Your task to perform on an android device: Clear the shopping cart on costco.com. Add razer kraken to the cart on costco.com Image 0: 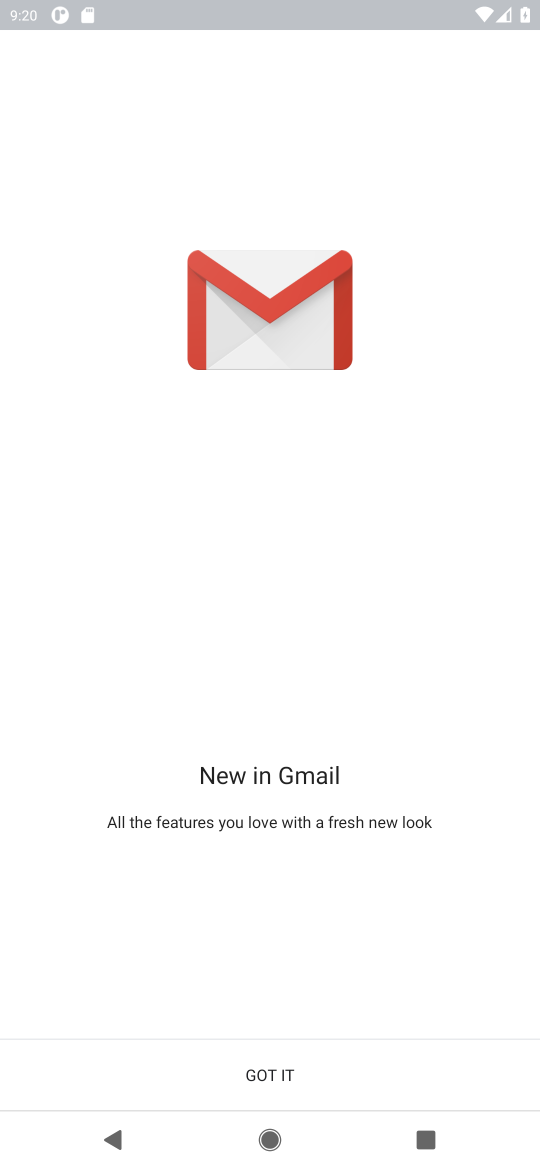
Step 0: press home button
Your task to perform on an android device: Clear the shopping cart on costco.com. Add razer kraken to the cart on costco.com Image 1: 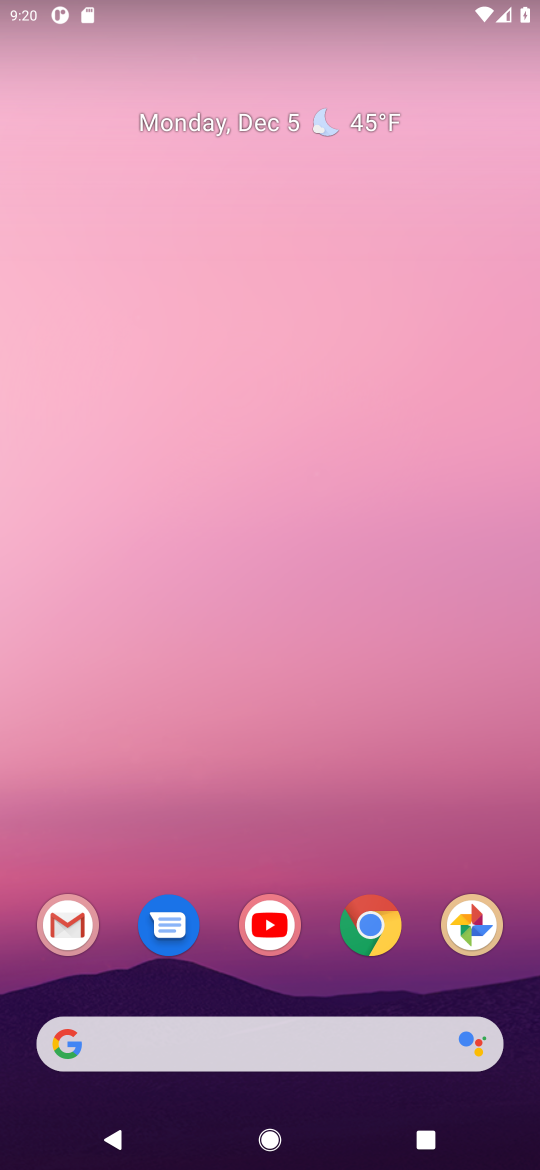
Step 1: click (371, 921)
Your task to perform on an android device: Clear the shopping cart on costco.com. Add razer kraken to the cart on costco.com Image 2: 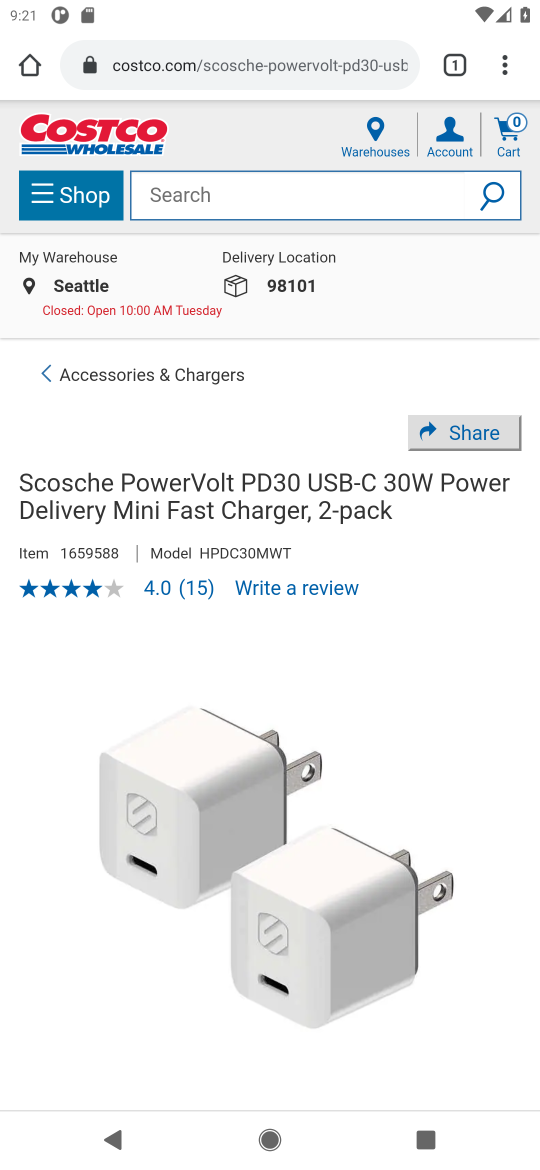
Step 2: click (505, 142)
Your task to perform on an android device: Clear the shopping cart on costco.com. Add razer kraken to the cart on costco.com Image 3: 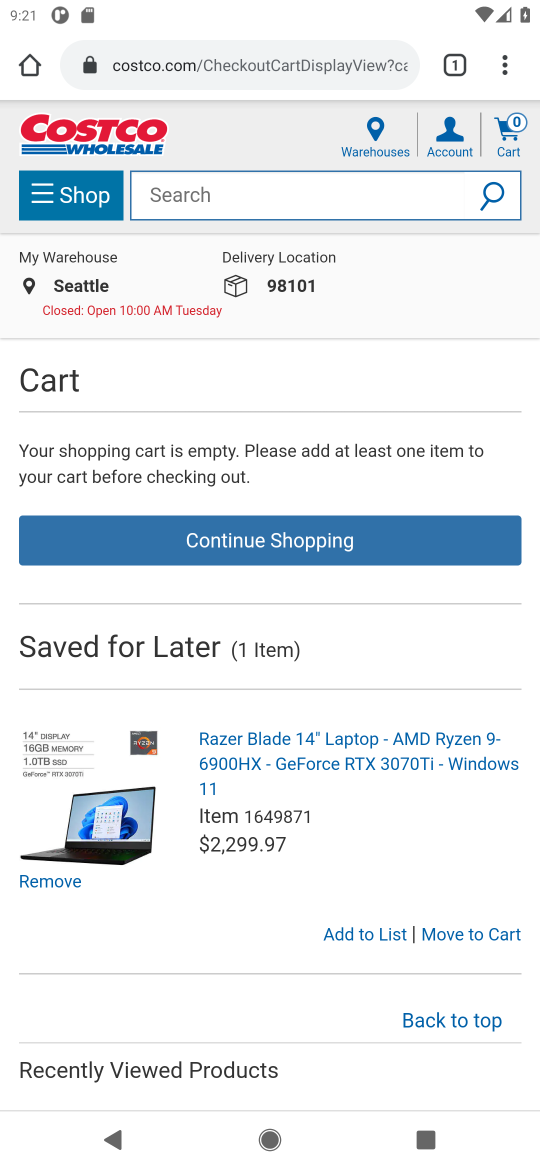
Step 3: click (167, 197)
Your task to perform on an android device: Clear the shopping cart on costco.com. Add razer kraken to the cart on costco.com Image 4: 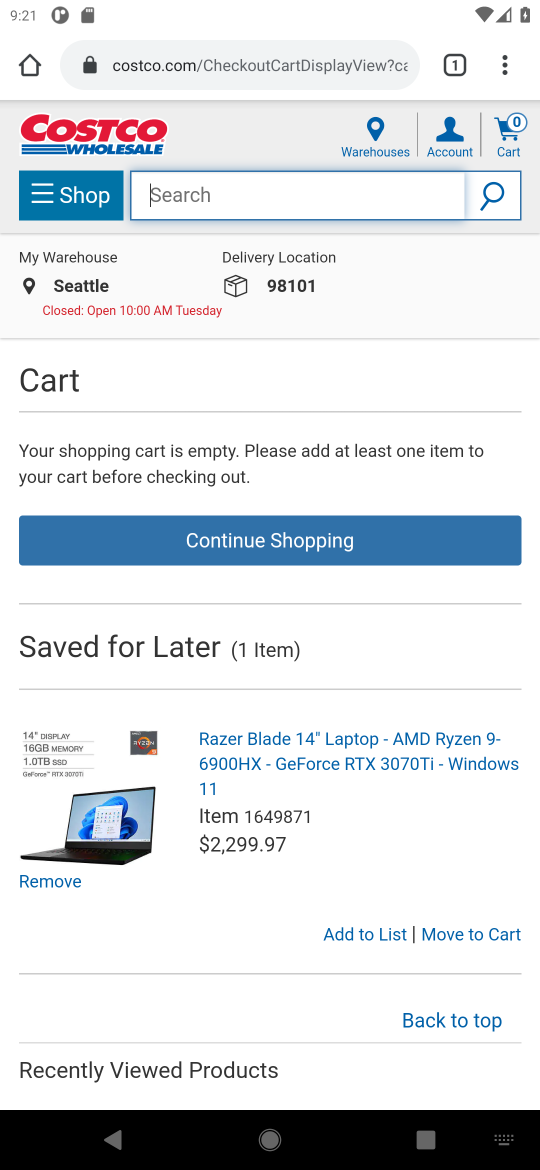
Step 4: type " razer kraken"
Your task to perform on an android device: Clear the shopping cart on costco.com. Add razer kraken to the cart on costco.com Image 5: 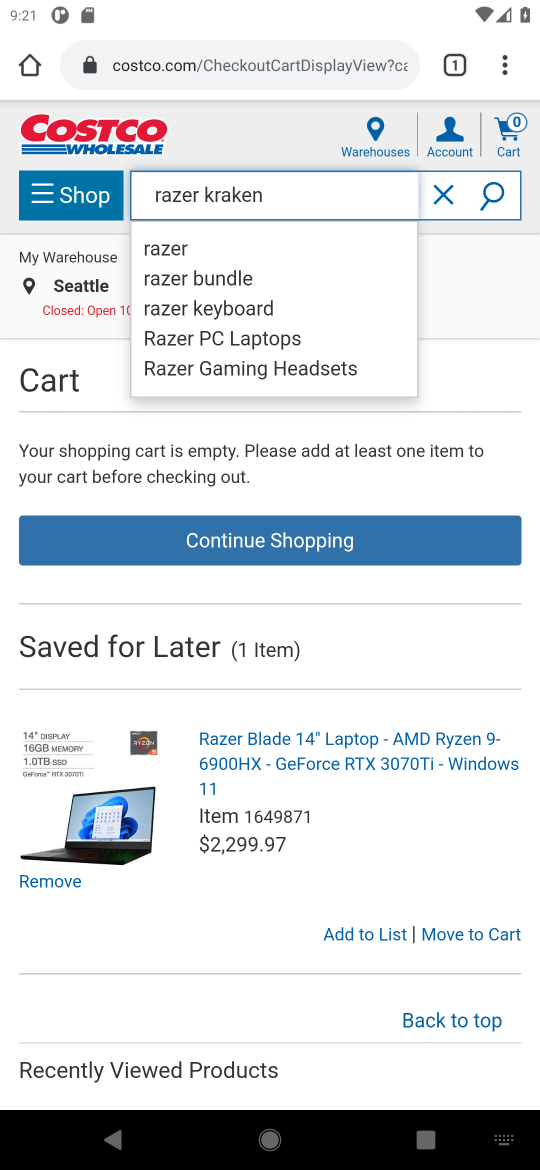
Step 5: click (494, 198)
Your task to perform on an android device: Clear the shopping cart on costco.com. Add razer kraken to the cart on costco.com Image 6: 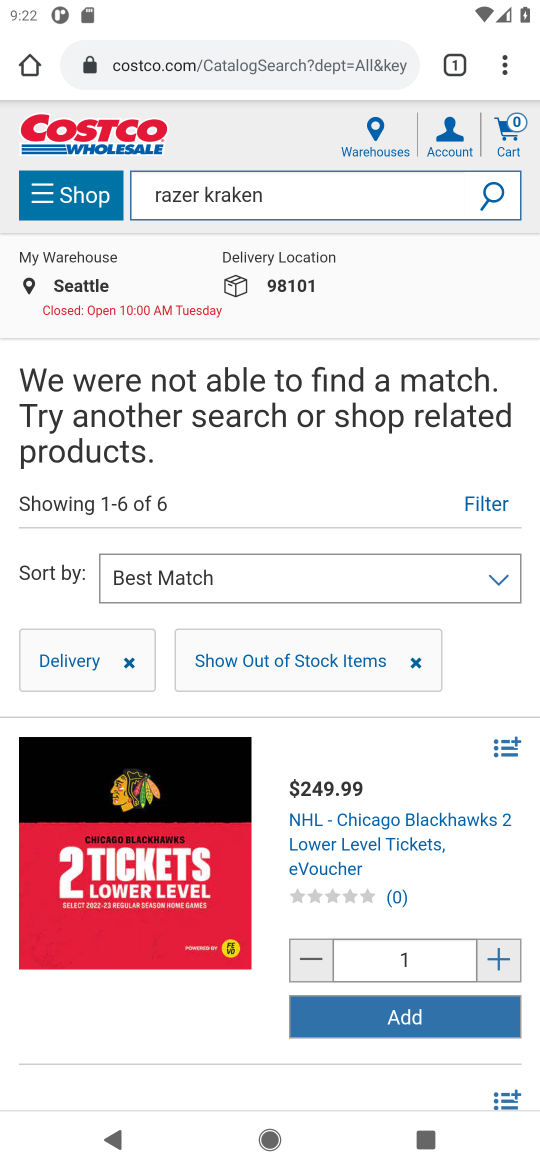
Step 6: task complete